Your task to perform on an android device: What's on my calendar today? Image 0: 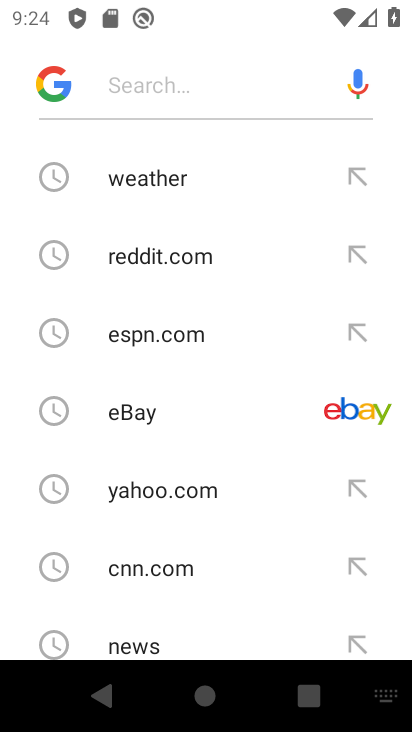
Step 0: press back button
Your task to perform on an android device: What's on my calendar today? Image 1: 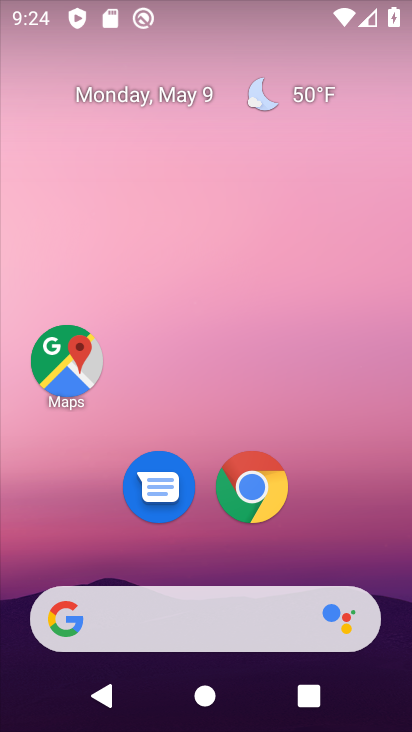
Step 1: drag from (25, 551) to (214, 154)
Your task to perform on an android device: What's on my calendar today? Image 2: 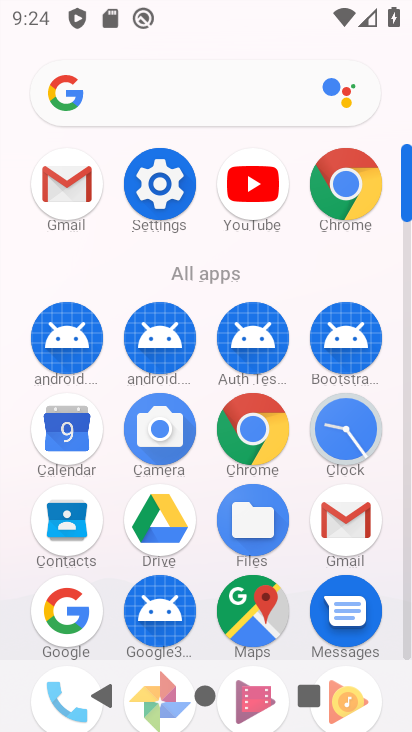
Step 2: click (78, 439)
Your task to perform on an android device: What's on my calendar today? Image 3: 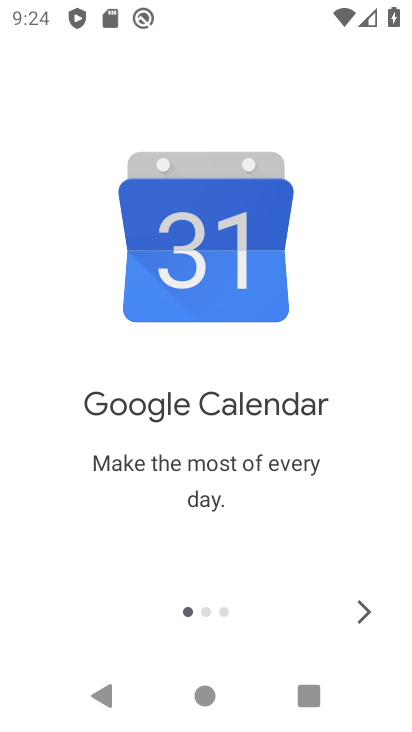
Step 3: click (370, 609)
Your task to perform on an android device: What's on my calendar today? Image 4: 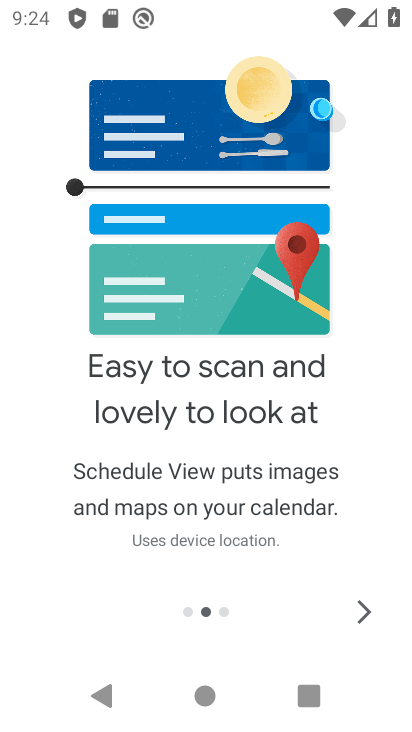
Step 4: click (372, 604)
Your task to perform on an android device: What's on my calendar today? Image 5: 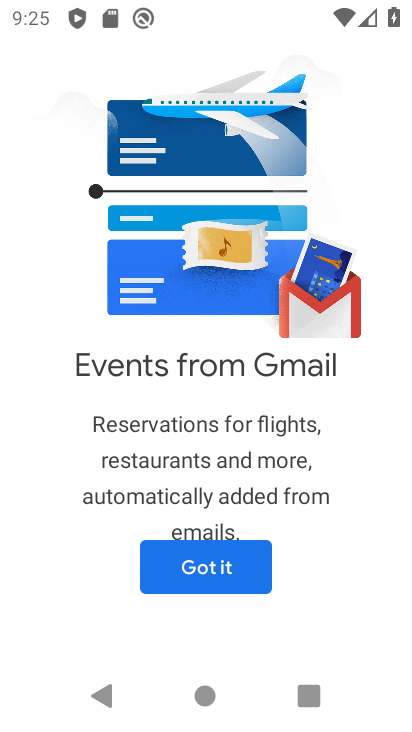
Step 5: click (181, 577)
Your task to perform on an android device: What's on my calendar today? Image 6: 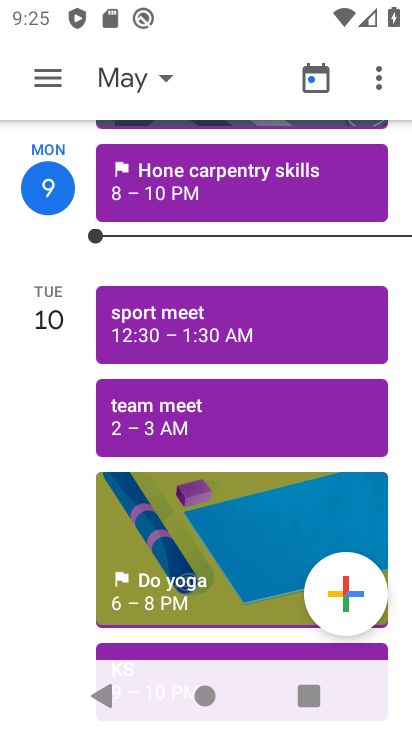
Step 6: click (118, 81)
Your task to perform on an android device: What's on my calendar today? Image 7: 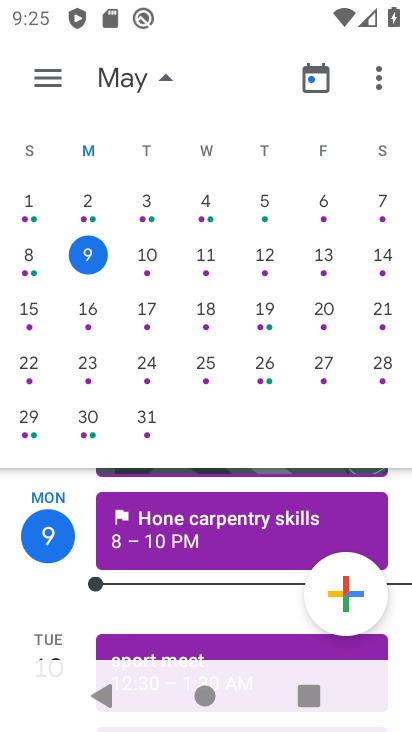
Step 7: click (75, 249)
Your task to perform on an android device: What's on my calendar today? Image 8: 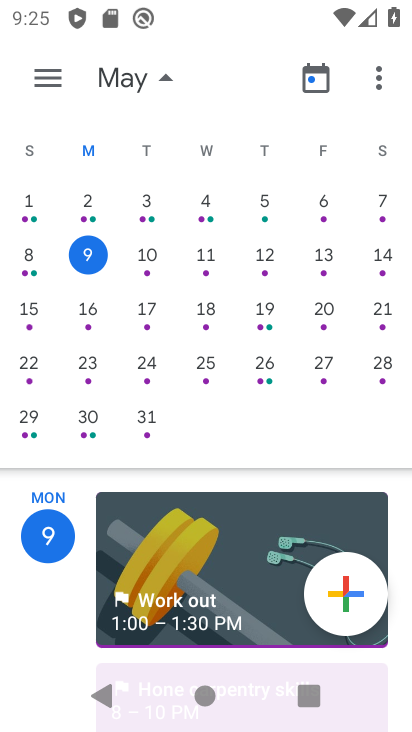
Step 8: task complete